Your task to perform on an android device: Go to ESPN.com Image 0: 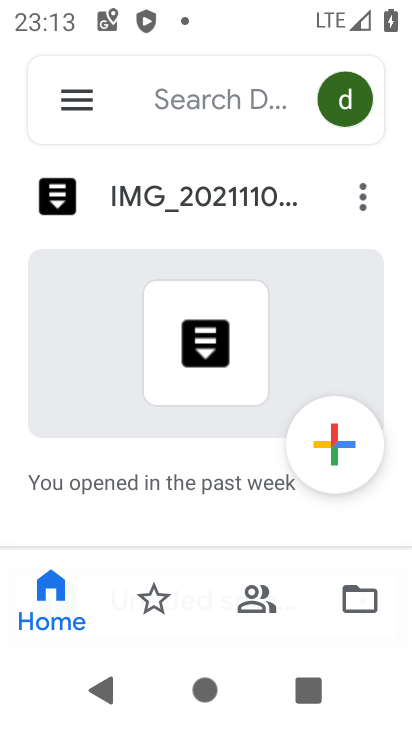
Step 0: press home button
Your task to perform on an android device: Go to ESPN.com Image 1: 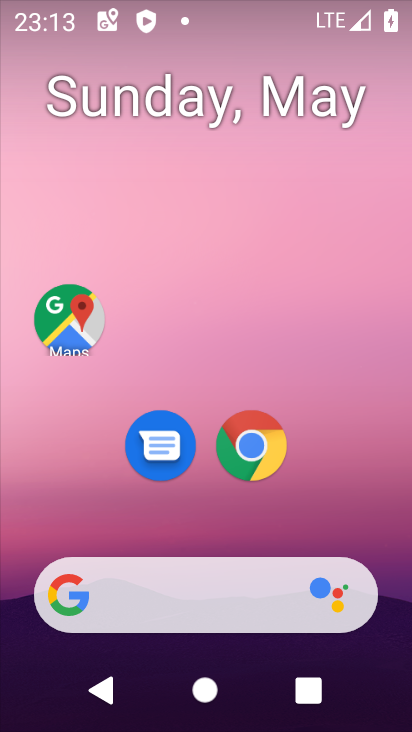
Step 1: click (49, 335)
Your task to perform on an android device: Go to ESPN.com Image 2: 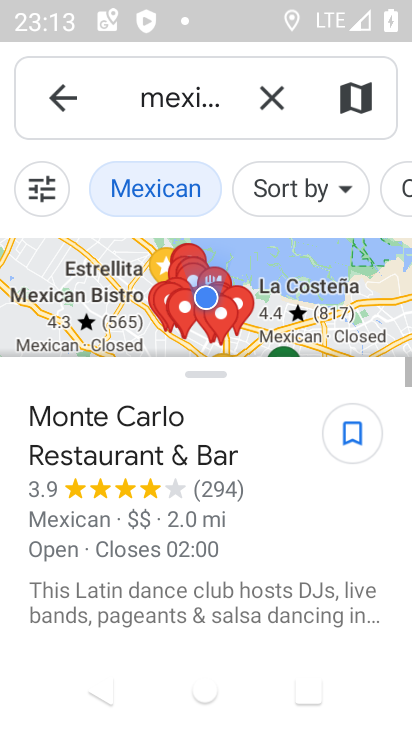
Step 2: click (278, 98)
Your task to perform on an android device: Go to ESPN.com Image 3: 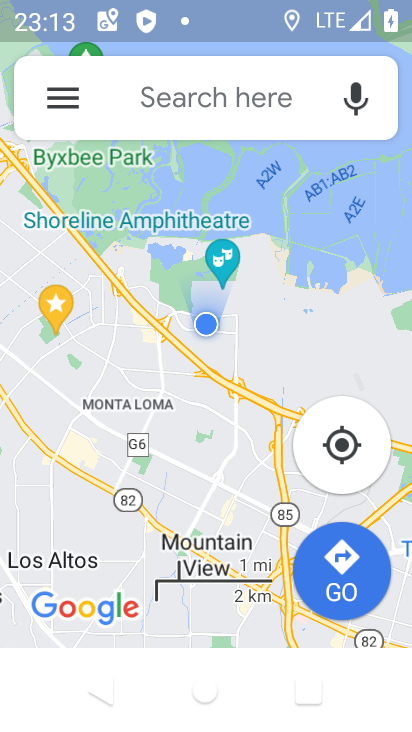
Step 3: click (278, 98)
Your task to perform on an android device: Go to ESPN.com Image 4: 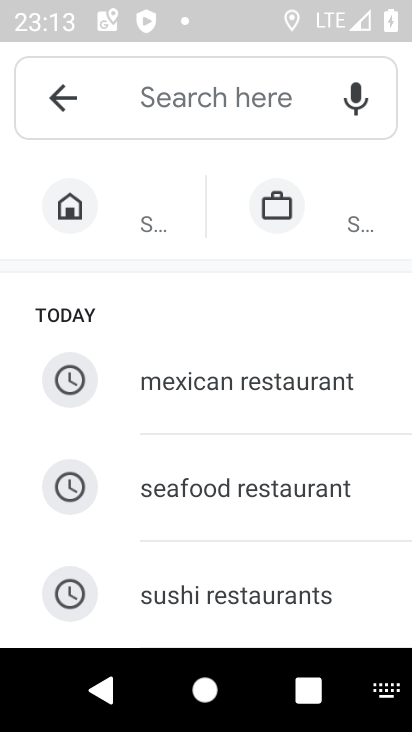
Step 4: type "ESPN.com"
Your task to perform on an android device: Go to ESPN.com Image 5: 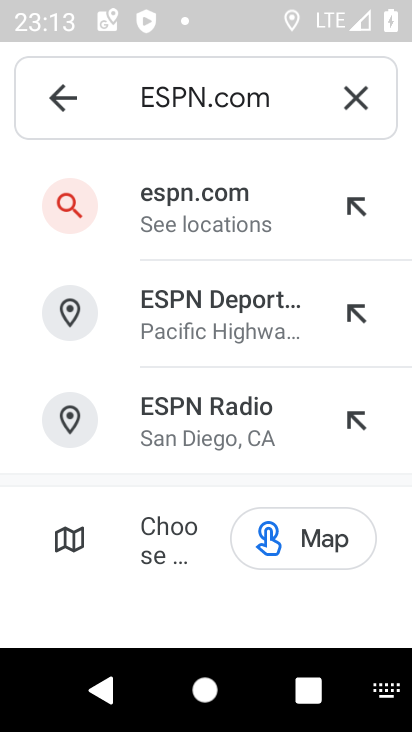
Step 5: click (241, 226)
Your task to perform on an android device: Go to ESPN.com Image 6: 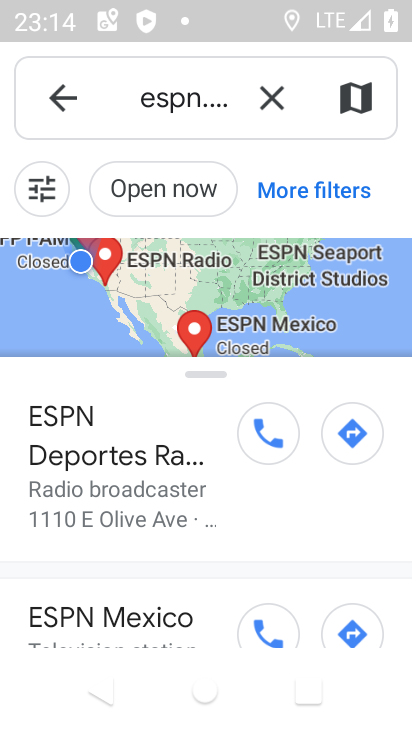
Step 6: task complete